Your task to perform on an android device: Open Google Chrome and open the bookmarks view Image 0: 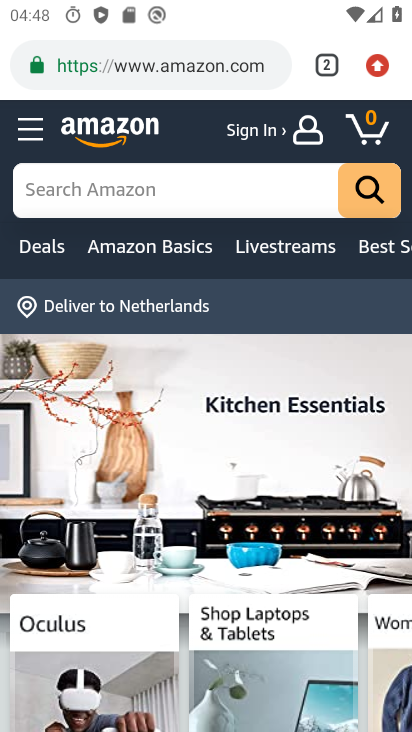
Step 0: press home button
Your task to perform on an android device: Open Google Chrome and open the bookmarks view Image 1: 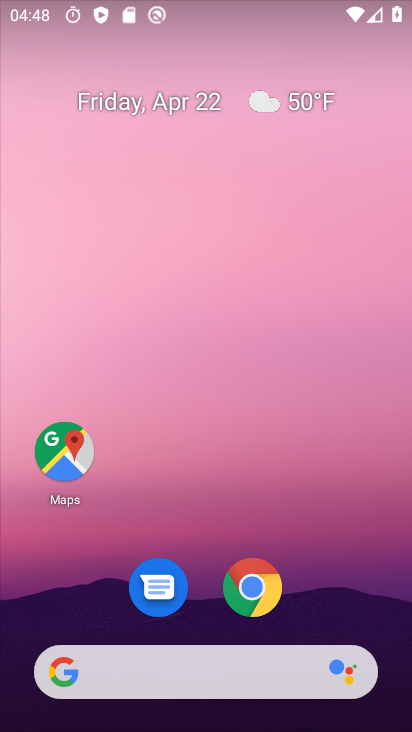
Step 1: click (257, 588)
Your task to perform on an android device: Open Google Chrome and open the bookmarks view Image 2: 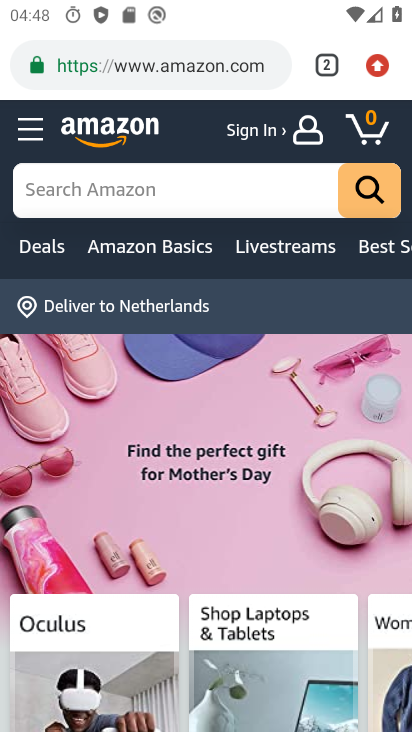
Step 2: click (377, 68)
Your task to perform on an android device: Open Google Chrome and open the bookmarks view Image 3: 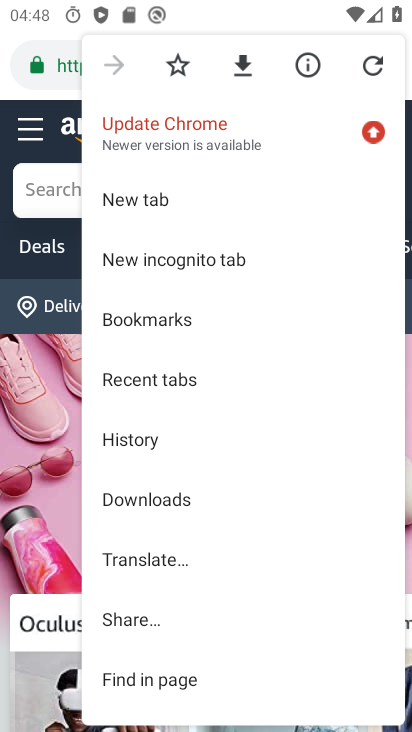
Step 3: click (152, 319)
Your task to perform on an android device: Open Google Chrome and open the bookmarks view Image 4: 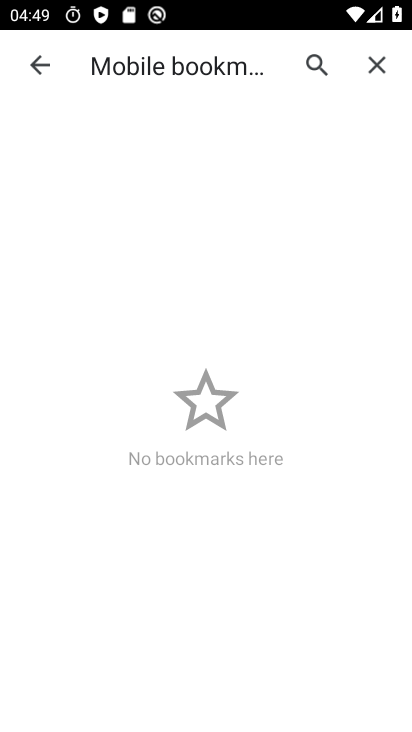
Step 4: task complete